Your task to perform on an android device: turn on wifi Image 0: 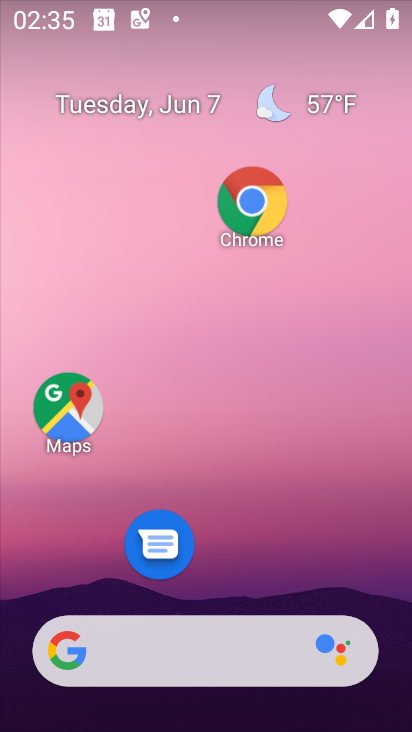
Step 0: drag from (249, 605) to (305, 247)
Your task to perform on an android device: turn on wifi Image 1: 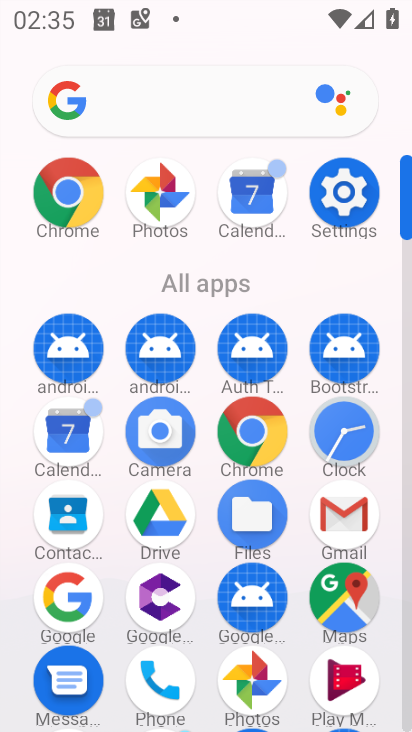
Step 1: click (327, 196)
Your task to perform on an android device: turn on wifi Image 2: 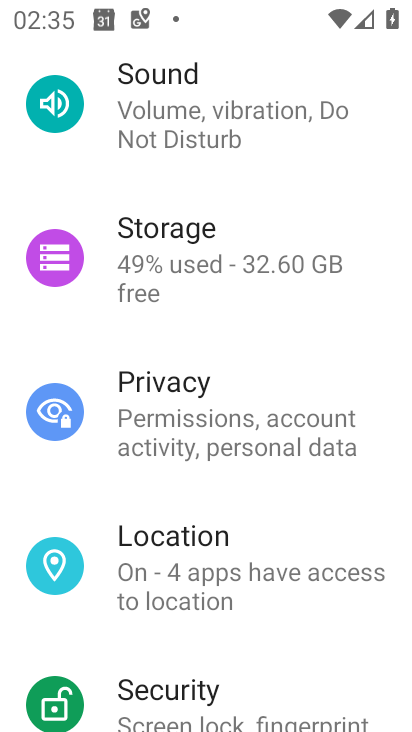
Step 2: drag from (213, 116) to (231, 503)
Your task to perform on an android device: turn on wifi Image 3: 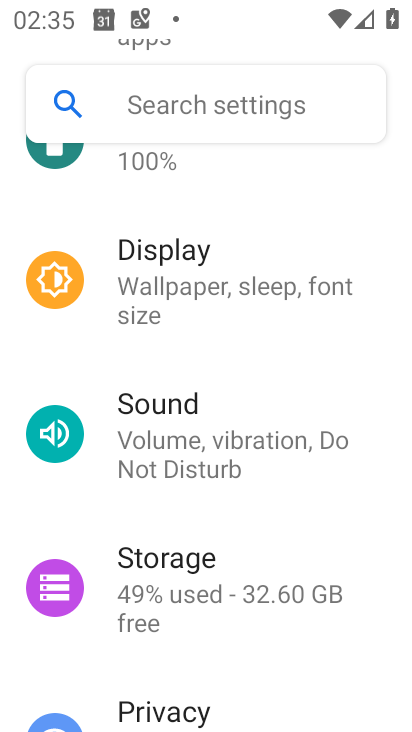
Step 3: drag from (203, 172) to (216, 637)
Your task to perform on an android device: turn on wifi Image 4: 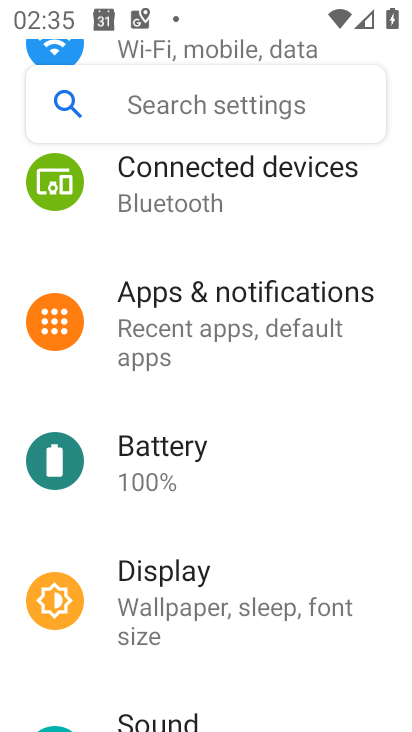
Step 4: drag from (181, 200) to (194, 587)
Your task to perform on an android device: turn on wifi Image 5: 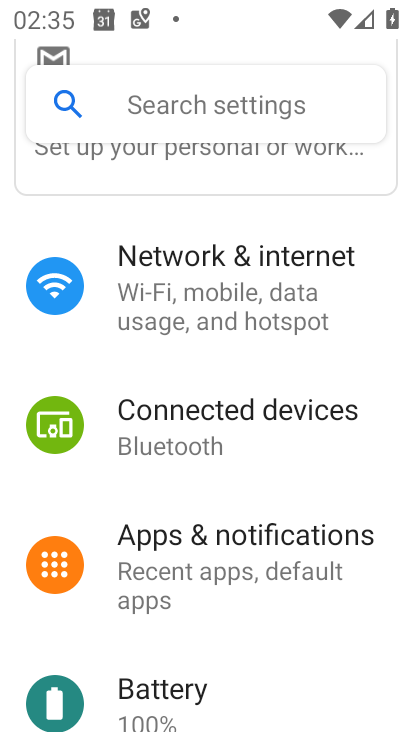
Step 5: click (197, 250)
Your task to perform on an android device: turn on wifi Image 6: 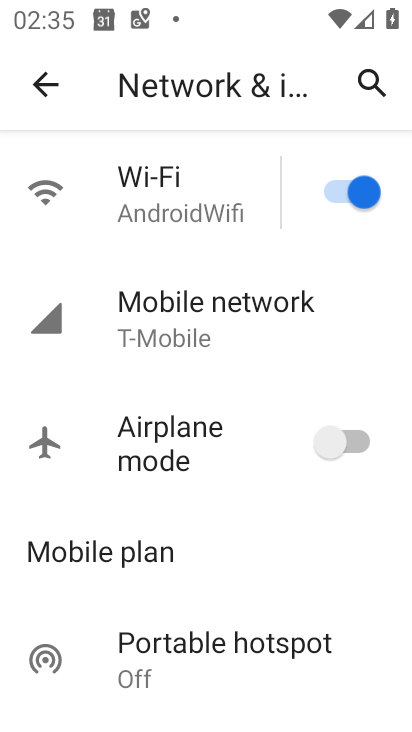
Step 6: task complete